Your task to perform on an android device: delete location history Image 0: 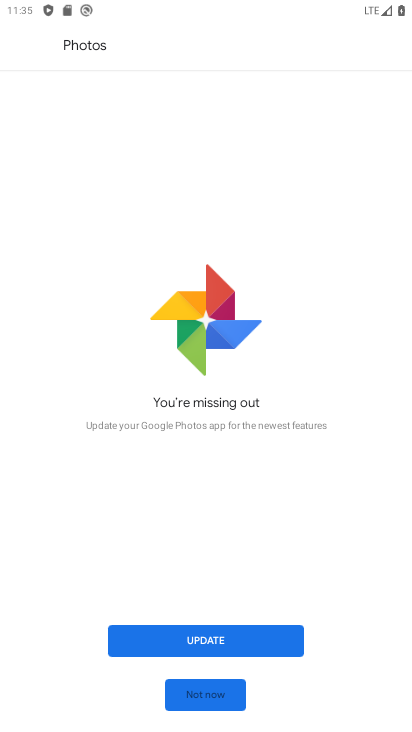
Step 0: press home button
Your task to perform on an android device: delete location history Image 1: 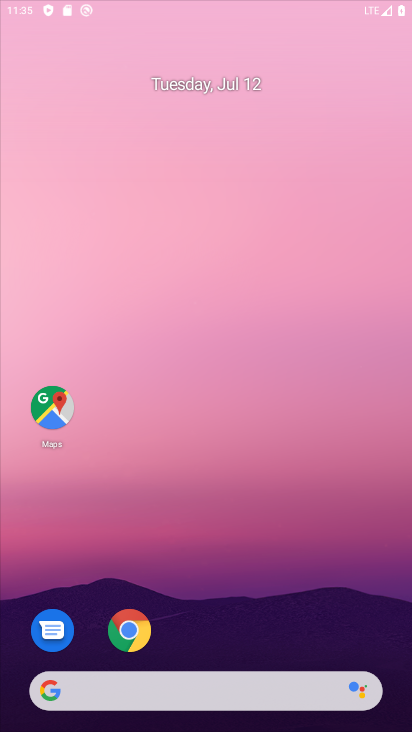
Step 1: drag from (392, 676) to (267, 23)
Your task to perform on an android device: delete location history Image 2: 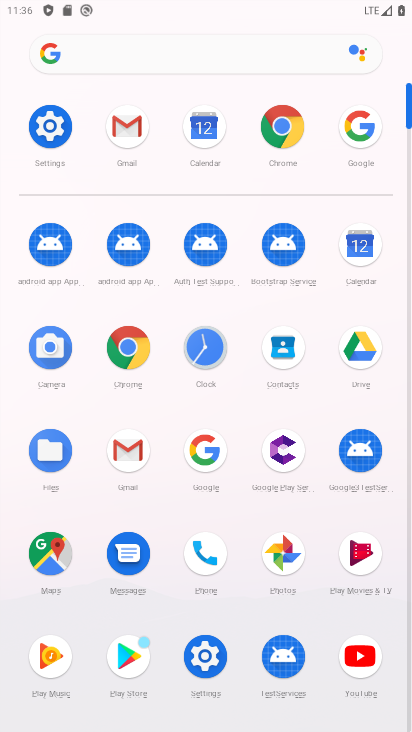
Step 2: click (216, 656)
Your task to perform on an android device: delete location history Image 3: 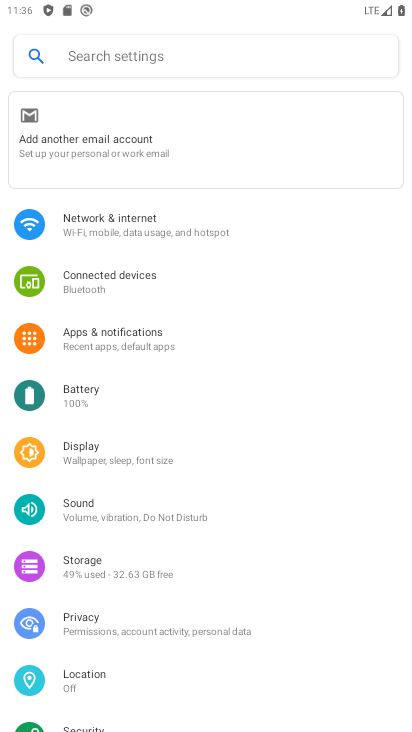
Step 3: click (96, 686)
Your task to perform on an android device: delete location history Image 4: 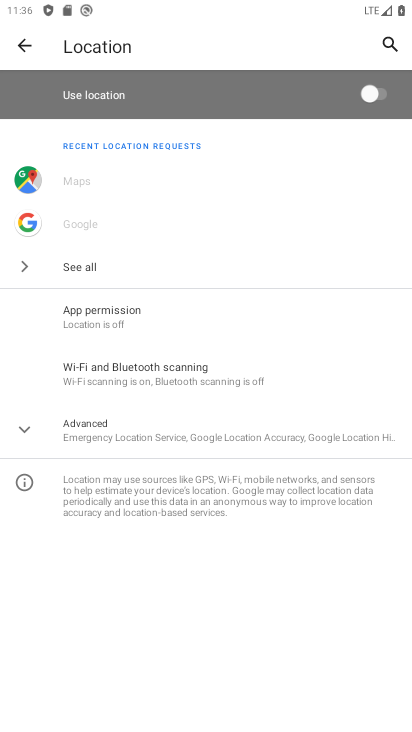
Step 4: click (96, 418)
Your task to perform on an android device: delete location history Image 5: 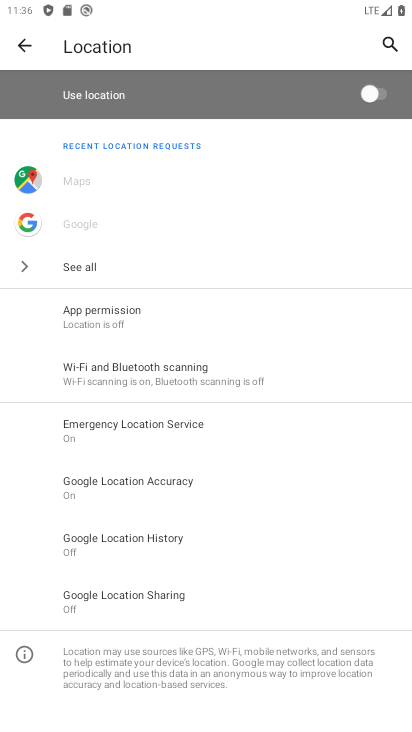
Step 5: click (98, 534)
Your task to perform on an android device: delete location history Image 6: 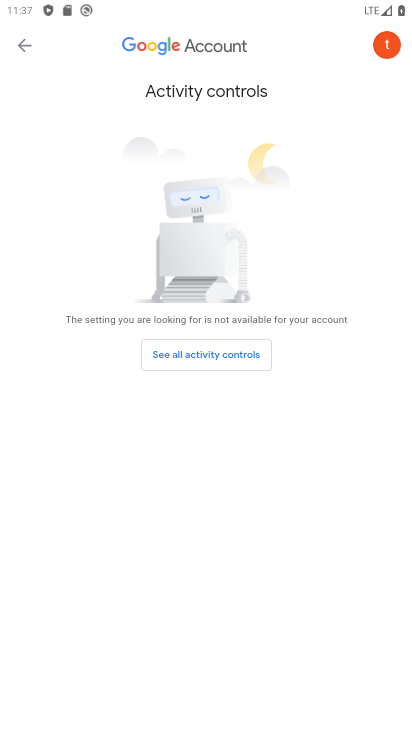
Step 6: task complete